Your task to perform on an android device: Open Google Maps Image 0: 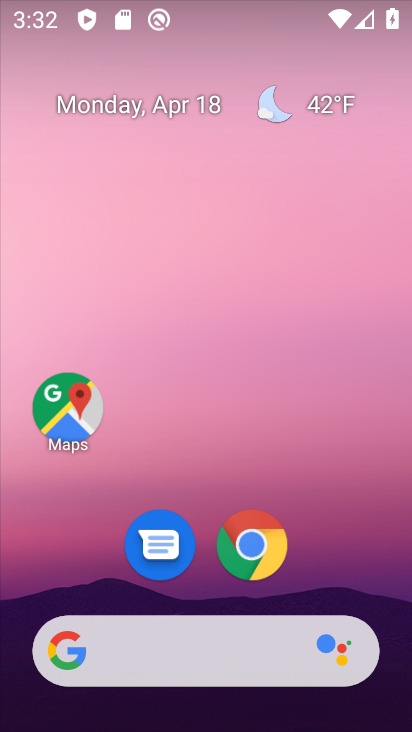
Step 0: drag from (309, 572) to (309, 93)
Your task to perform on an android device: Open Google Maps Image 1: 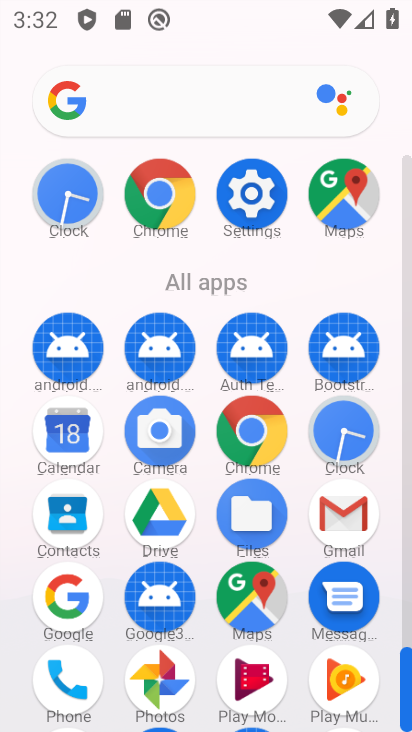
Step 1: click (346, 209)
Your task to perform on an android device: Open Google Maps Image 2: 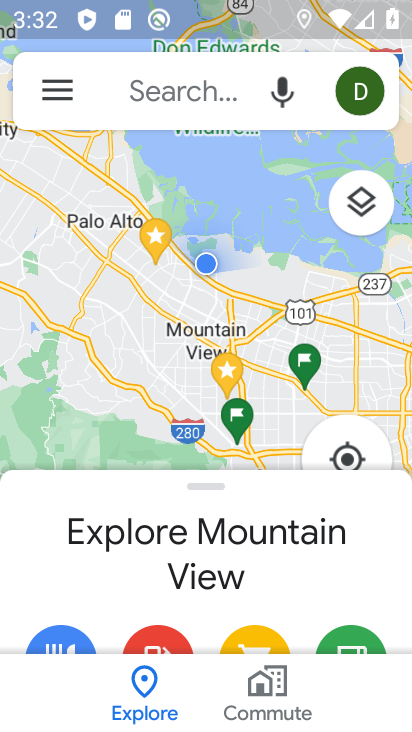
Step 2: task complete